Your task to perform on an android device: find snoozed emails in the gmail app Image 0: 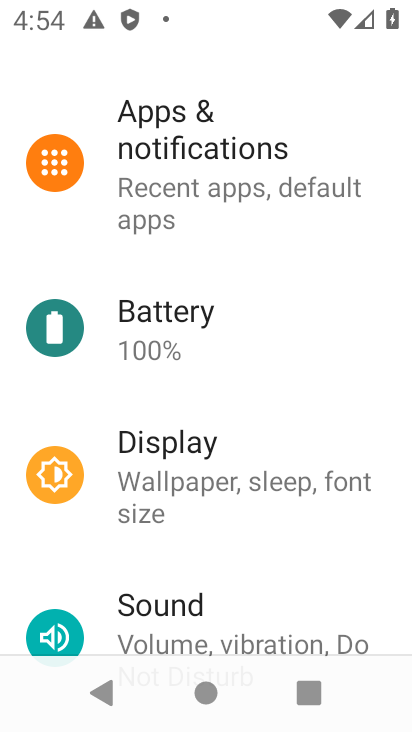
Step 0: task complete